Your task to perform on an android device: turn on showing notifications on the lock screen Image 0: 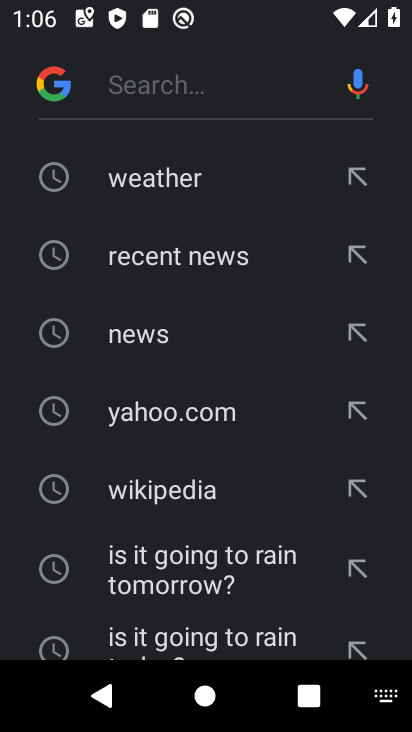
Step 0: press home button
Your task to perform on an android device: turn on showing notifications on the lock screen Image 1: 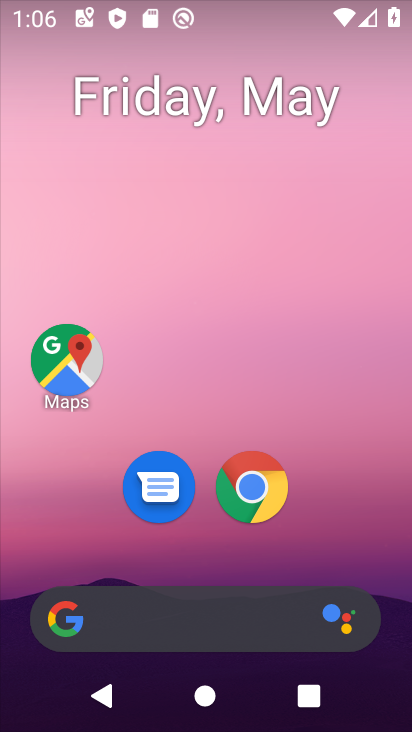
Step 1: drag from (204, 561) to (229, 27)
Your task to perform on an android device: turn on showing notifications on the lock screen Image 2: 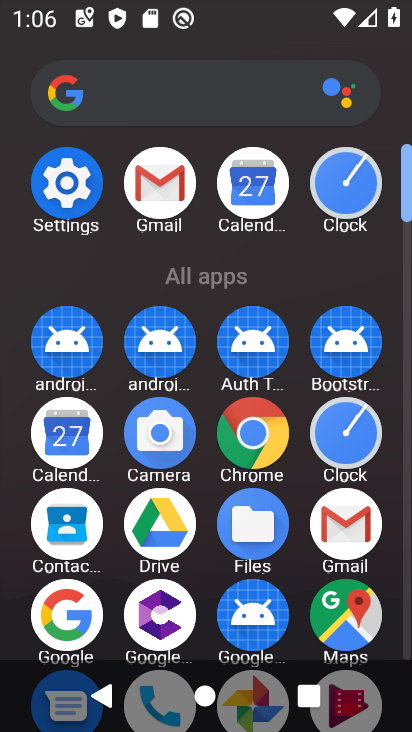
Step 2: click (61, 186)
Your task to perform on an android device: turn on showing notifications on the lock screen Image 3: 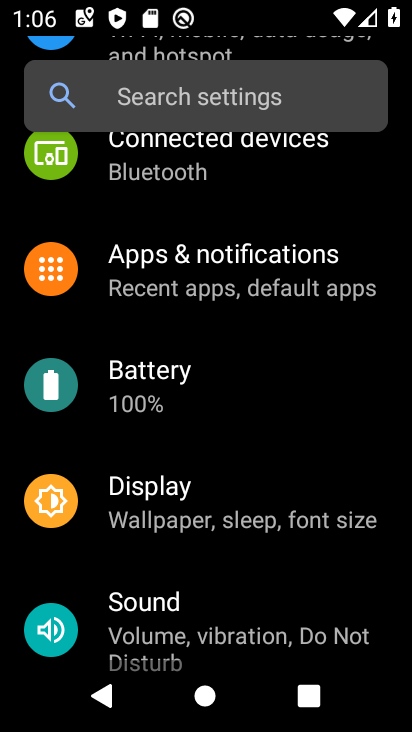
Step 3: click (129, 265)
Your task to perform on an android device: turn on showing notifications on the lock screen Image 4: 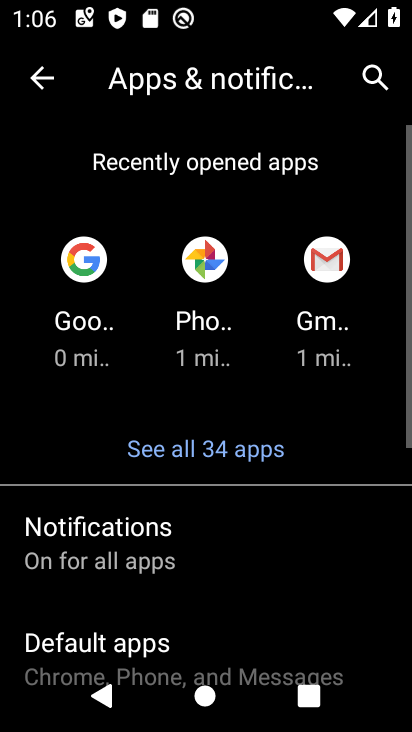
Step 4: drag from (128, 597) to (241, 219)
Your task to perform on an android device: turn on showing notifications on the lock screen Image 5: 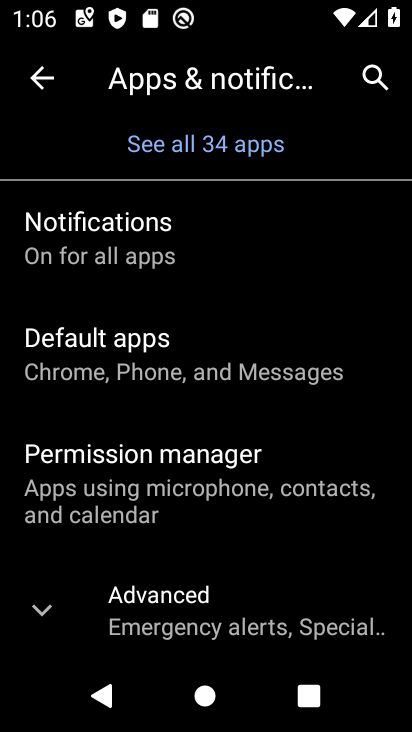
Step 5: drag from (218, 458) to (209, 133)
Your task to perform on an android device: turn on showing notifications on the lock screen Image 6: 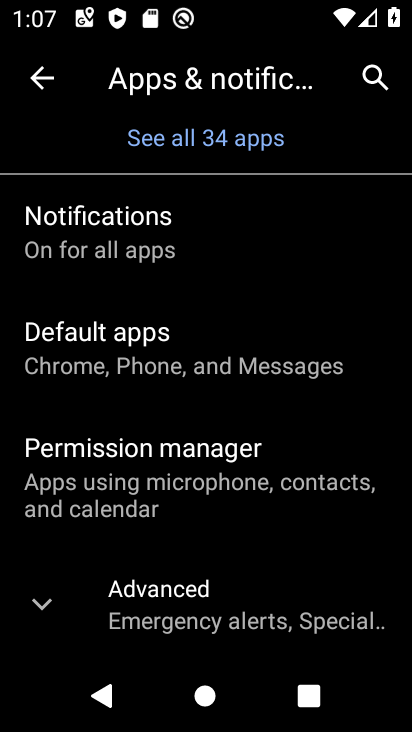
Step 6: click (107, 599)
Your task to perform on an android device: turn on showing notifications on the lock screen Image 7: 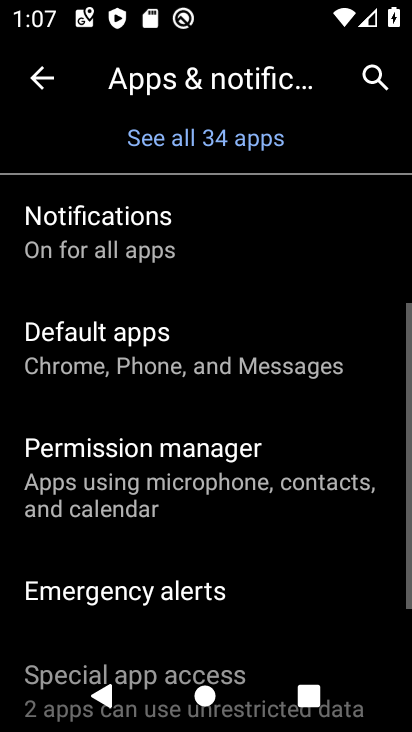
Step 7: drag from (107, 599) to (208, 187)
Your task to perform on an android device: turn on showing notifications on the lock screen Image 8: 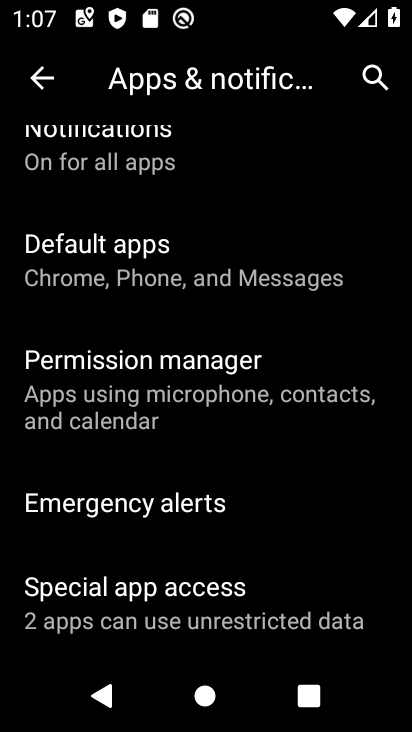
Step 8: drag from (255, 169) to (240, 515)
Your task to perform on an android device: turn on showing notifications on the lock screen Image 9: 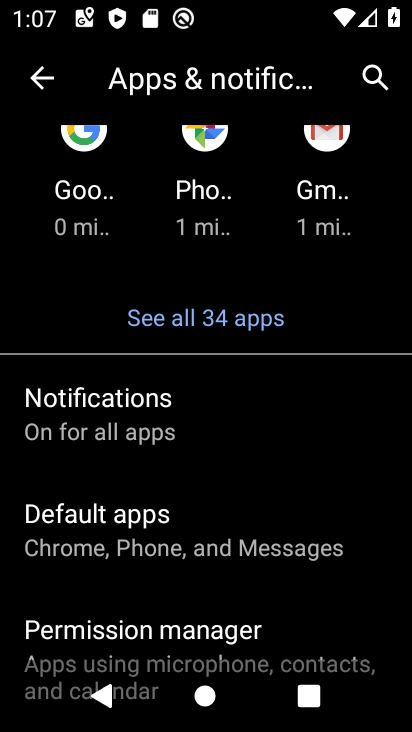
Step 9: drag from (240, 515) to (291, 210)
Your task to perform on an android device: turn on showing notifications on the lock screen Image 10: 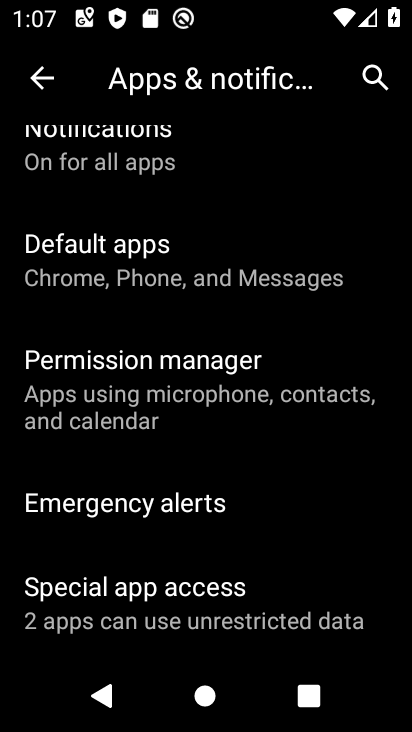
Step 10: click (135, 144)
Your task to perform on an android device: turn on showing notifications on the lock screen Image 11: 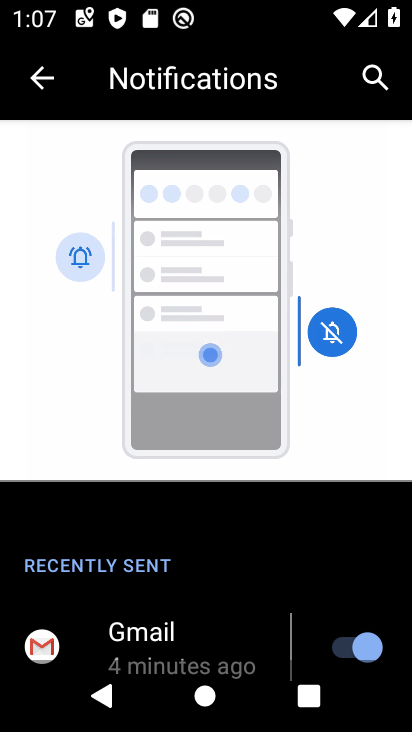
Step 11: drag from (97, 580) to (170, 145)
Your task to perform on an android device: turn on showing notifications on the lock screen Image 12: 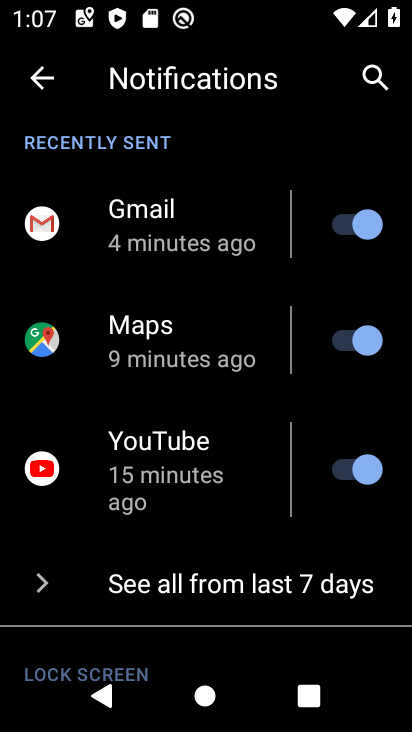
Step 12: drag from (178, 571) to (223, 101)
Your task to perform on an android device: turn on showing notifications on the lock screen Image 13: 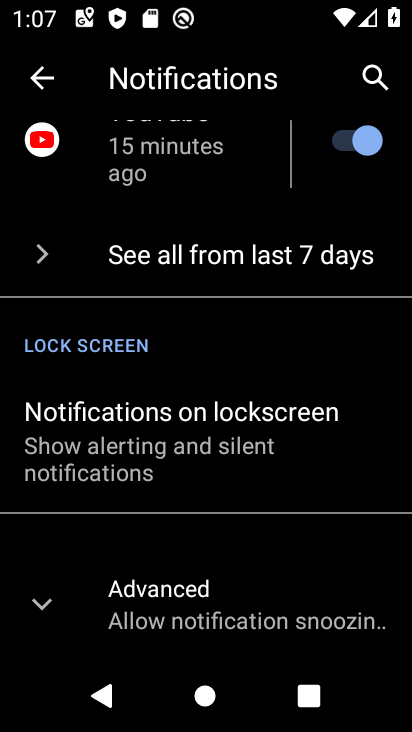
Step 13: click (158, 464)
Your task to perform on an android device: turn on showing notifications on the lock screen Image 14: 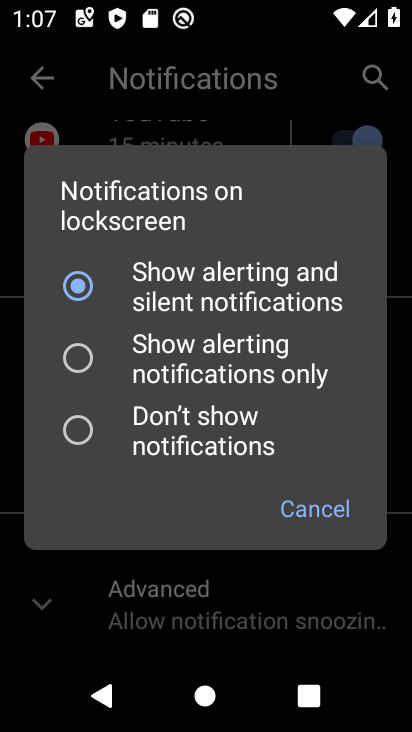
Step 14: task complete